Your task to perform on an android device: turn off notifications settings in the gmail app Image 0: 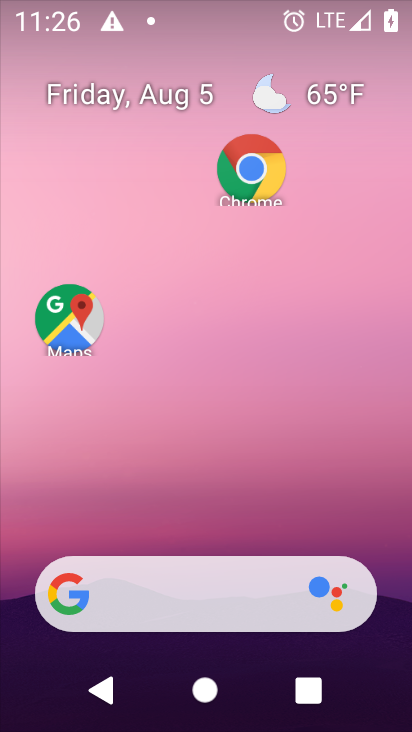
Step 0: drag from (210, 524) to (171, 12)
Your task to perform on an android device: turn off notifications settings in the gmail app Image 1: 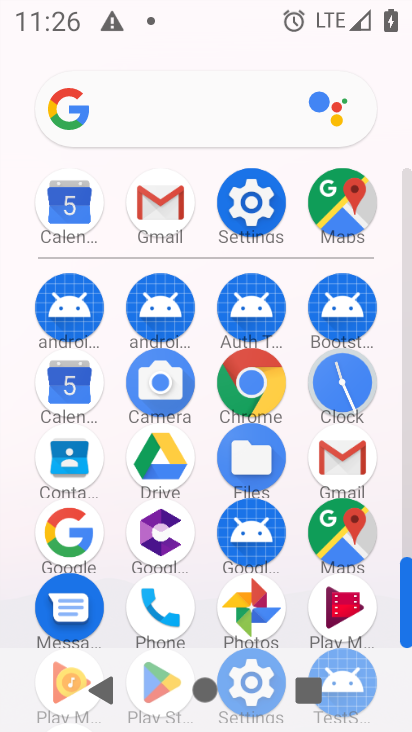
Step 1: click (150, 241)
Your task to perform on an android device: turn off notifications settings in the gmail app Image 2: 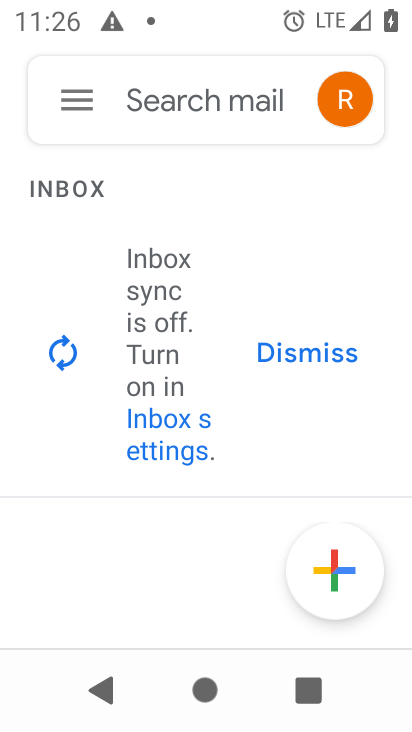
Step 2: click (68, 113)
Your task to perform on an android device: turn off notifications settings in the gmail app Image 3: 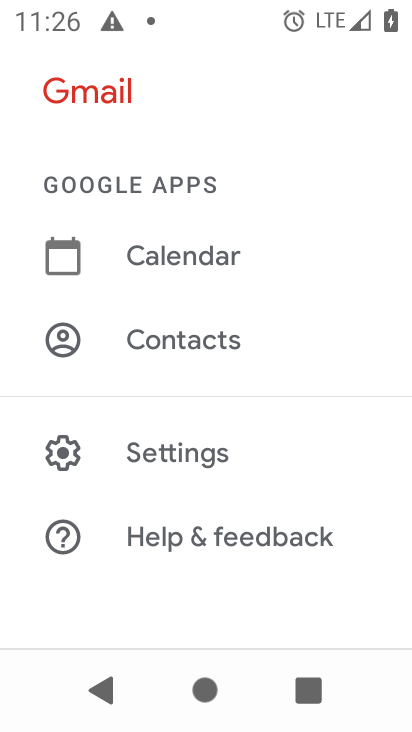
Step 3: click (220, 440)
Your task to perform on an android device: turn off notifications settings in the gmail app Image 4: 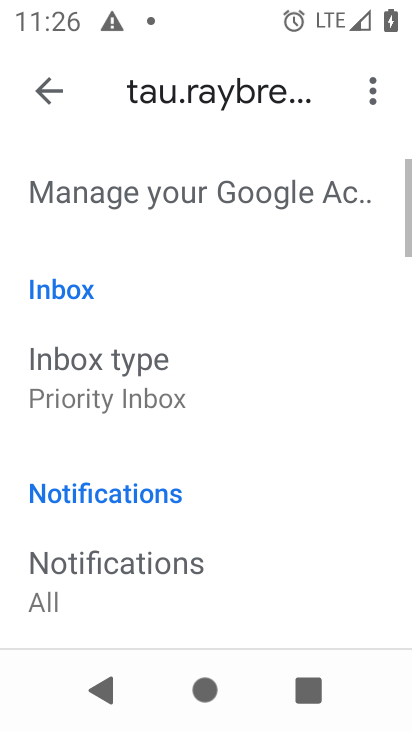
Step 4: drag from (244, 553) to (230, 222)
Your task to perform on an android device: turn off notifications settings in the gmail app Image 5: 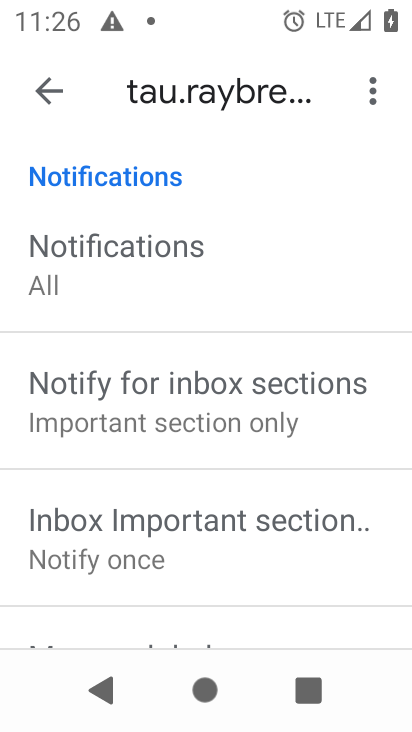
Step 5: drag from (232, 550) to (232, 255)
Your task to perform on an android device: turn off notifications settings in the gmail app Image 6: 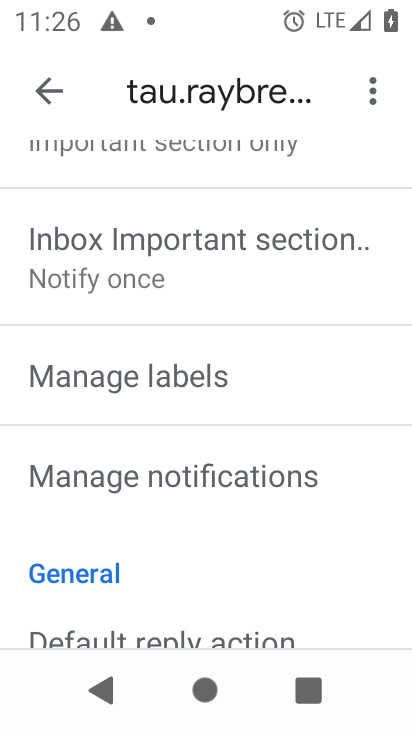
Step 6: click (254, 512)
Your task to perform on an android device: turn off notifications settings in the gmail app Image 7: 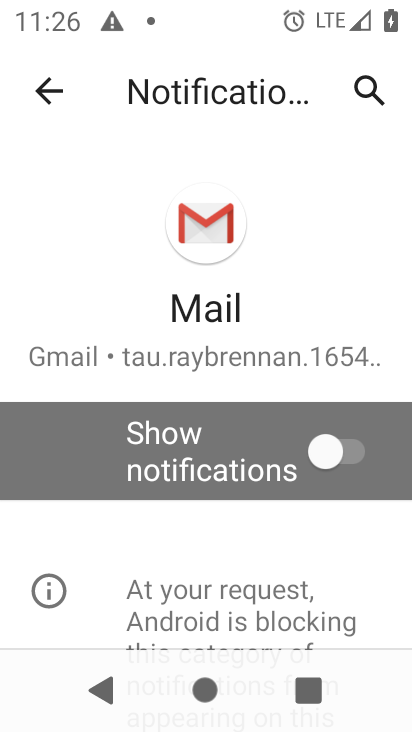
Step 7: task complete